Your task to perform on an android device: Do I have any events today? Image 0: 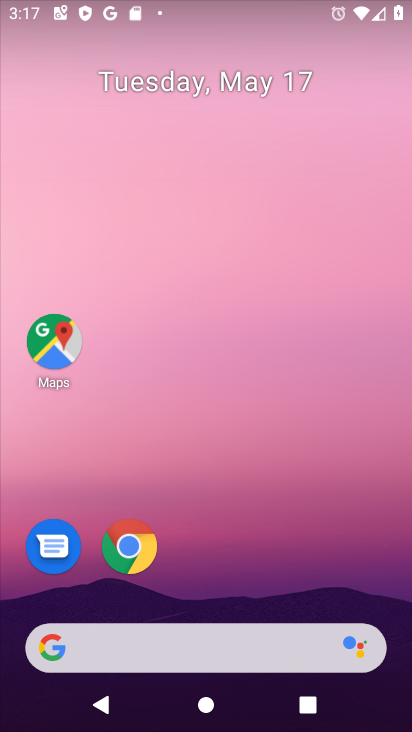
Step 0: click (348, 224)
Your task to perform on an android device: Do I have any events today? Image 1: 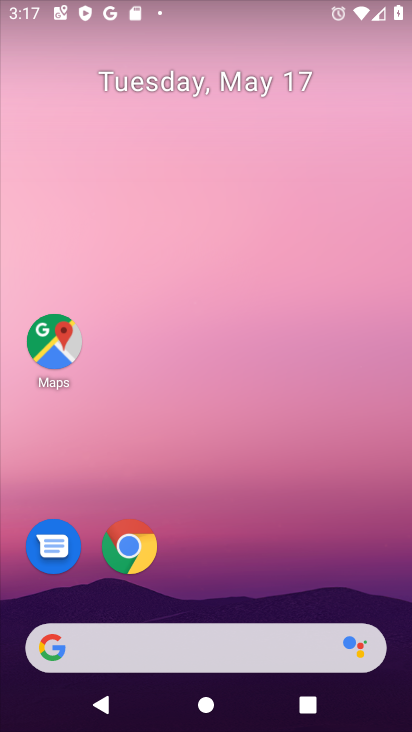
Step 1: drag from (404, 665) to (404, 261)
Your task to perform on an android device: Do I have any events today? Image 2: 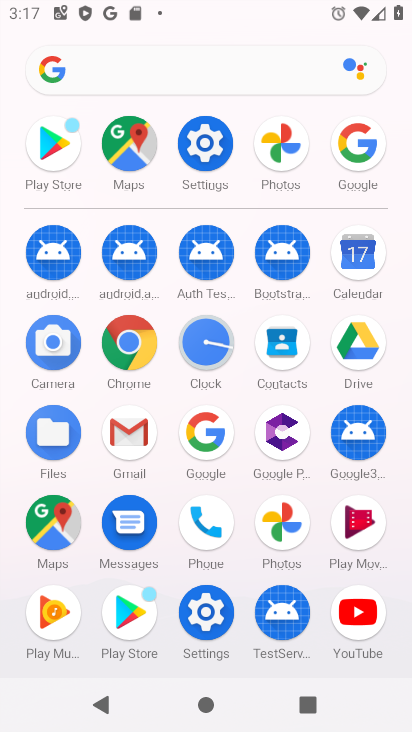
Step 2: click (353, 265)
Your task to perform on an android device: Do I have any events today? Image 3: 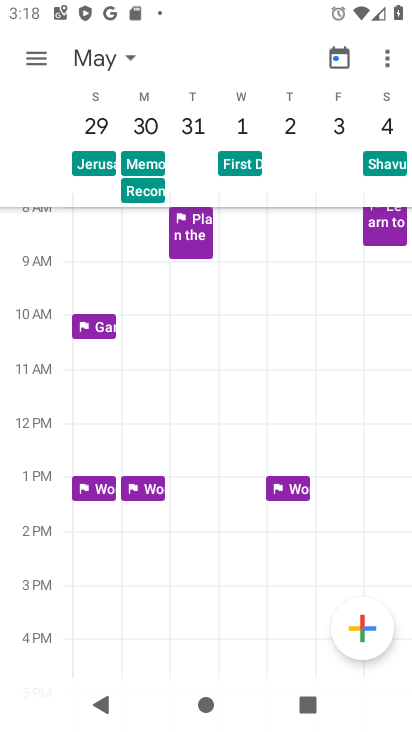
Step 3: click (119, 54)
Your task to perform on an android device: Do I have any events today? Image 4: 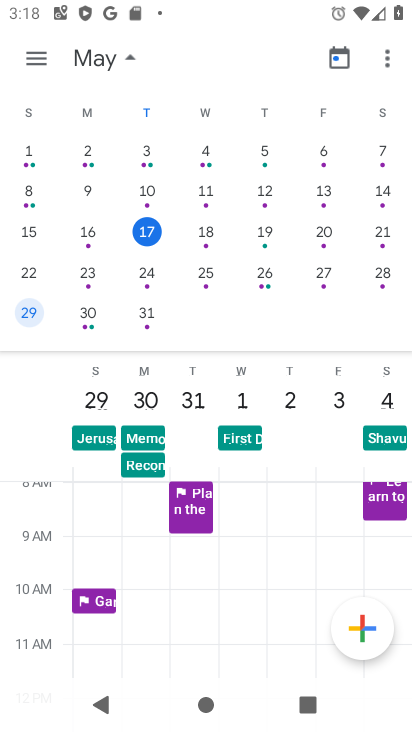
Step 4: click (144, 227)
Your task to perform on an android device: Do I have any events today? Image 5: 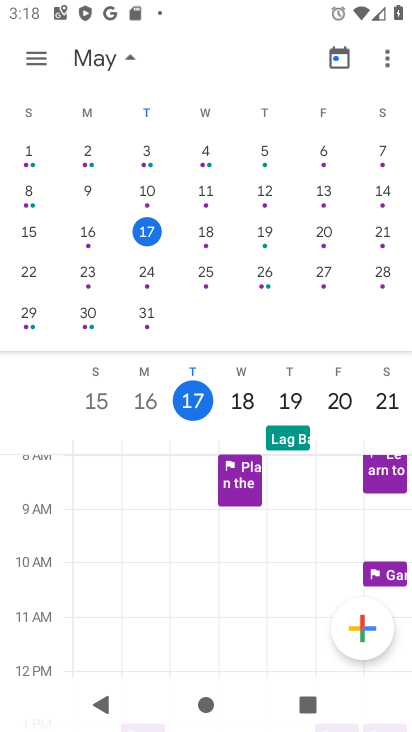
Step 5: task complete